Your task to perform on an android device: delete location history Image 0: 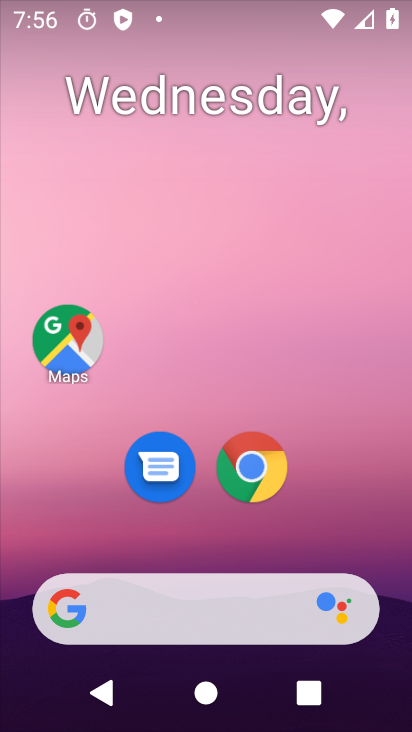
Step 0: click (51, 329)
Your task to perform on an android device: delete location history Image 1: 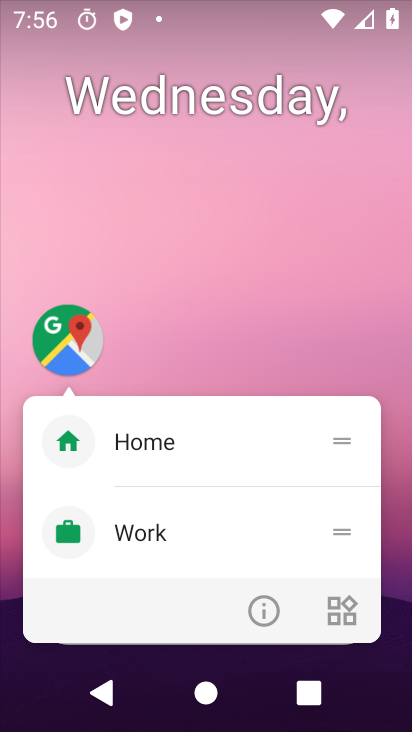
Step 1: click (51, 329)
Your task to perform on an android device: delete location history Image 2: 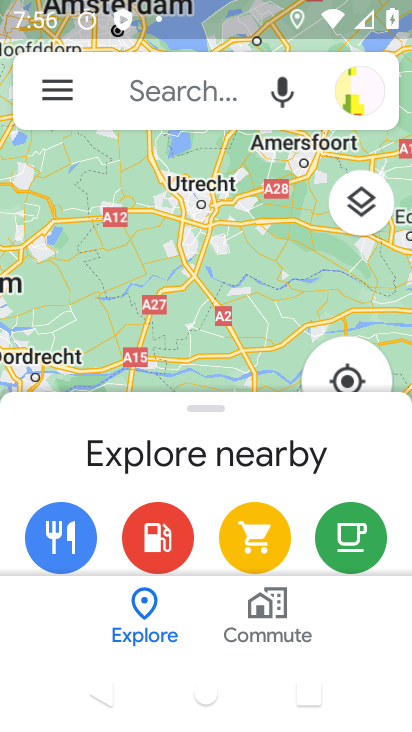
Step 2: click (65, 92)
Your task to perform on an android device: delete location history Image 3: 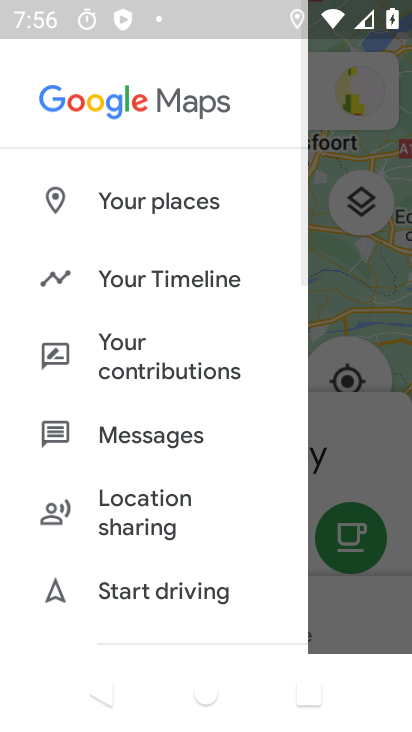
Step 3: click (134, 267)
Your task to perform on an android device: delete location history Image 4: 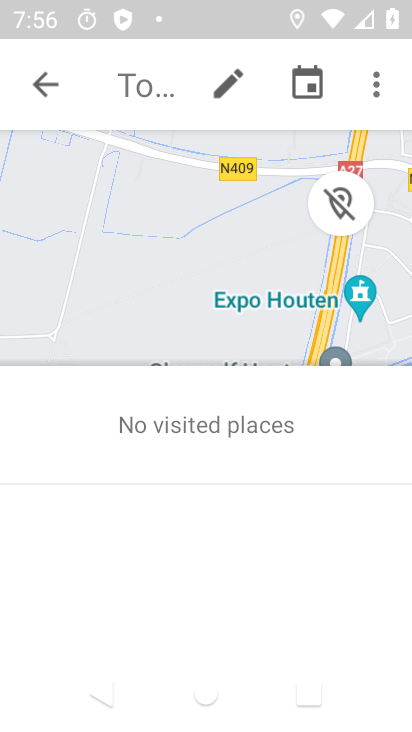
Step 4: click (370, 75)
Your task to perform on an android device: delete location history Image 5: 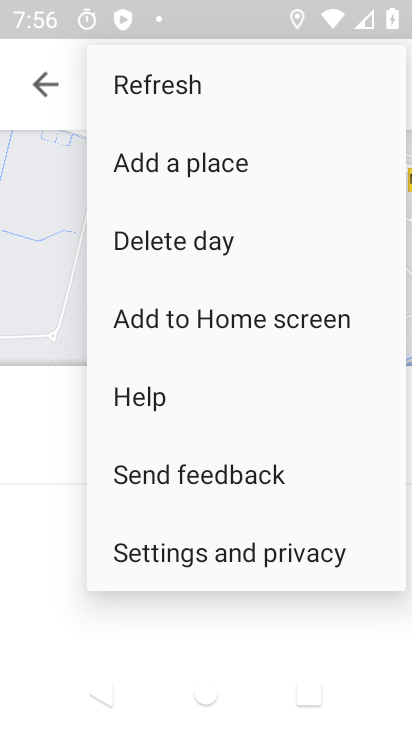
Step 5: click (246, 551)
Your task to perform on an android device: delete location history Image 6: 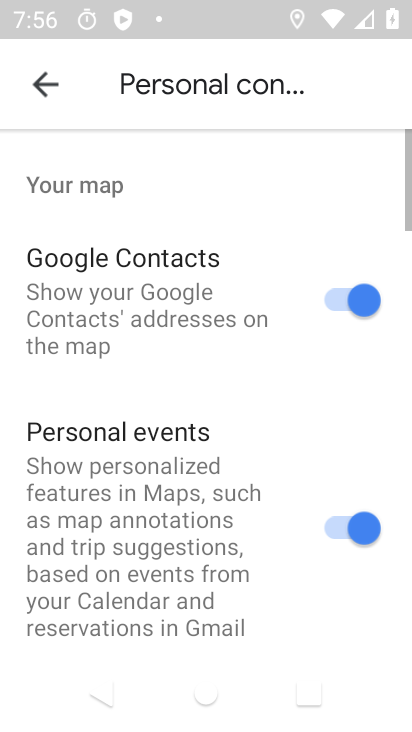
Step 6: drag from (246, 640) to (233, 180)
Your task to perform on an android device: delete location history Image 7: 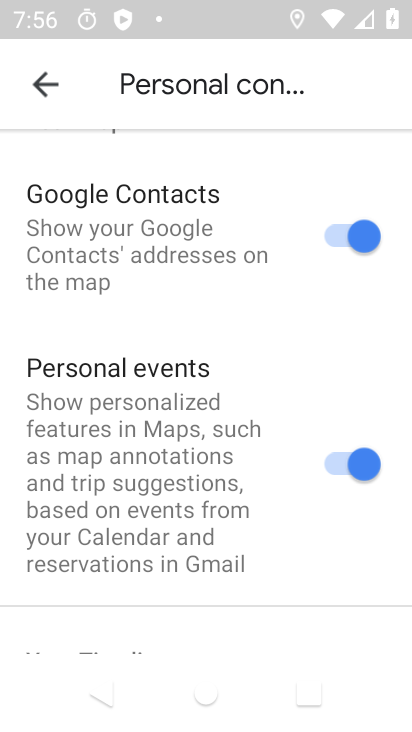
Step 7: drag from (267, 593) to (252, 150)
Your task to perform on an android device: delete location history Image 8: 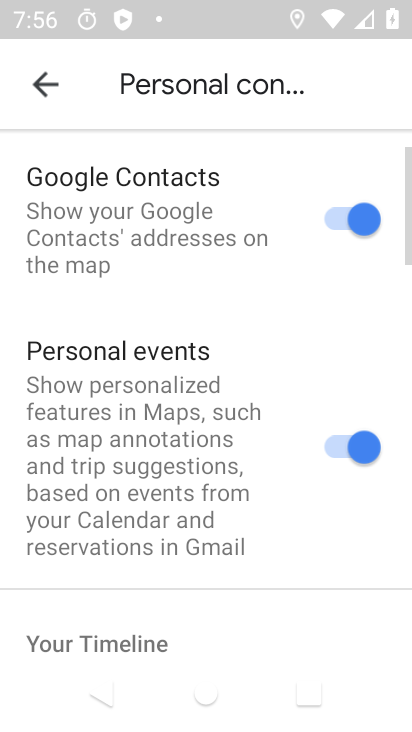
Step 8: drag from (256, 554) to (255, 161)
Your task to perform on an android device: delete location history Image 9: 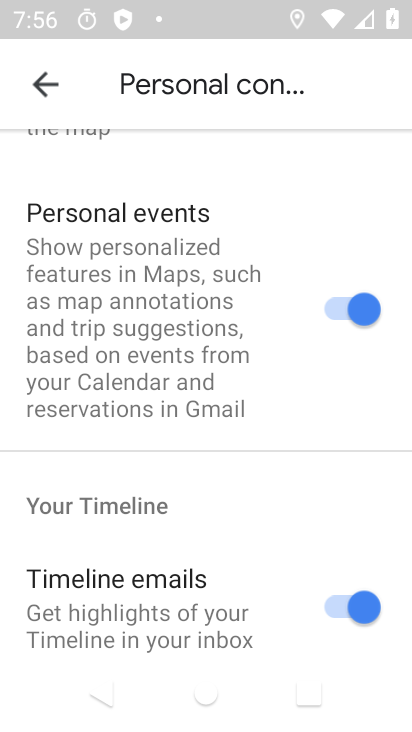
Step 9: drag from (266, 360) to (252, 221)
Your task to perform on an android device: delete location history Image 10: 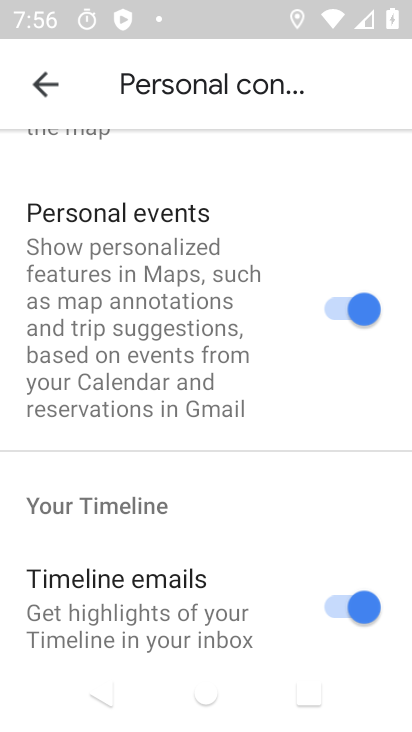
Step 10: drag from (252, 631) to (248, 277)
Your task to perform on an android device: delete location history Image 11: 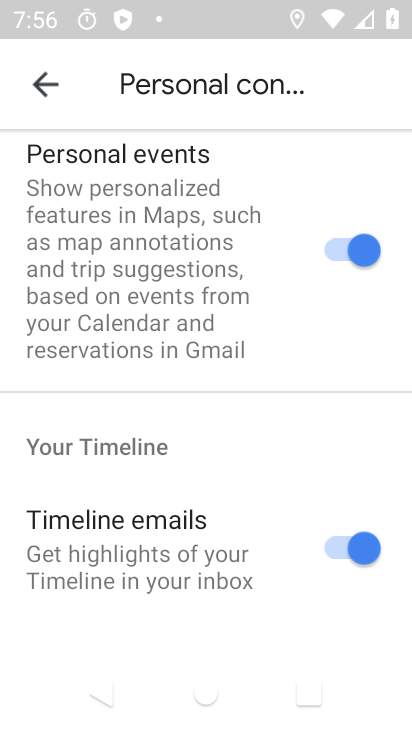
Step 11: drag from (243, 578) to (242, 237)
Your task to perform on an android device: delete location history Image 12: 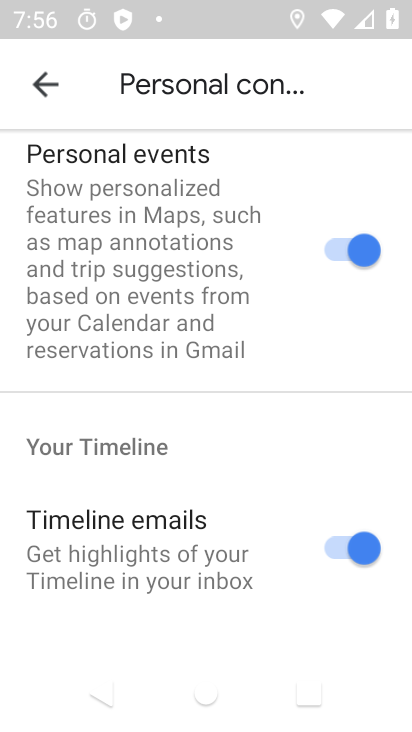
Step 12: drag from (253, 595) to (225, 140)
Your task to perform on an android device: delete location history Image 13: 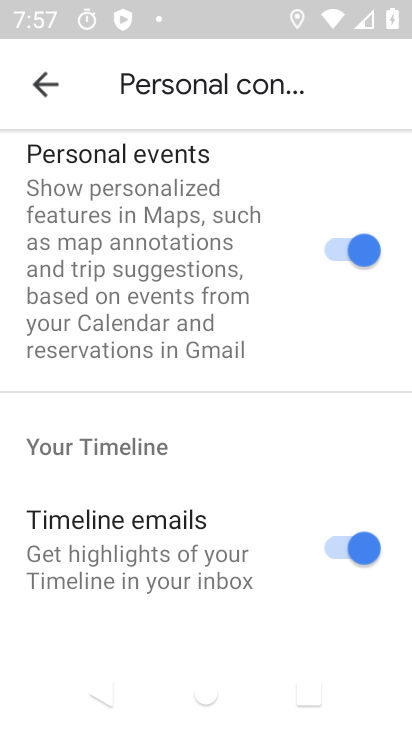
Step 13: drag from (248, 607) to (246, 194)
Your task to perform on an android device: delete location history Image 14: 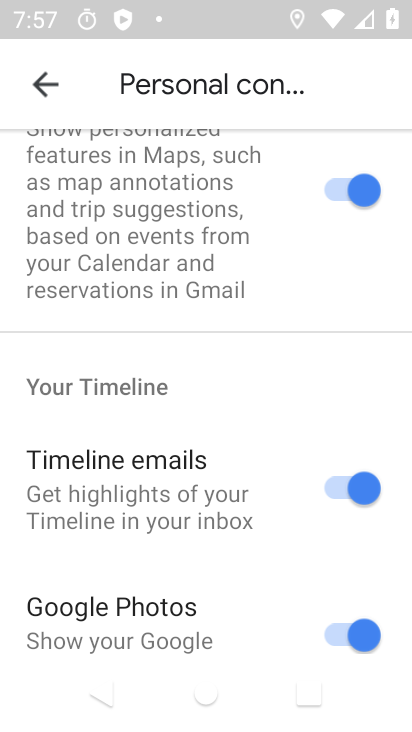
Step 14: drag from (226, 523) to (231, 278)
Your task to perform on an android device: delete location history Image 15: 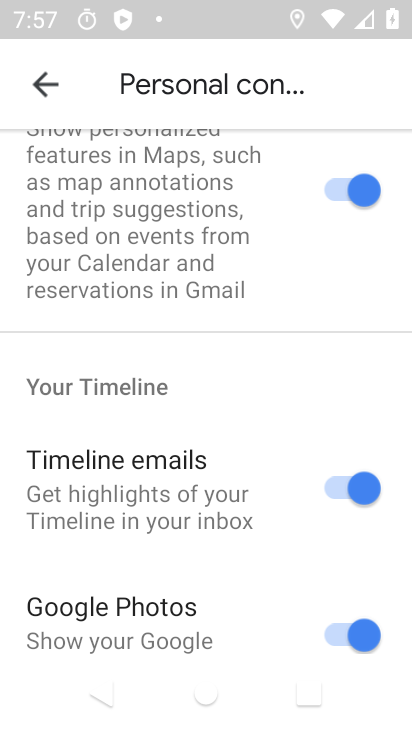
Step 15: drag from (232, 626) to (229, 173)
Your task to perform on an android device: delete location history Image 16: 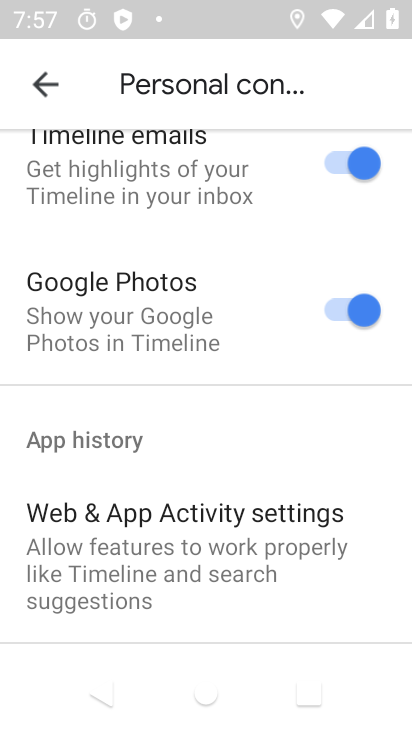
Step 16: drag from (209, 353) to (201, 206)
Your task to perform on an android device: delete location history Image 17: 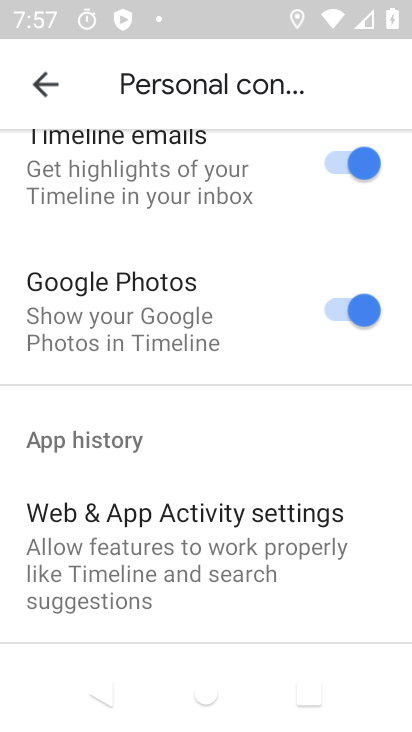
Step 17: drag from (211, 582) to (230, 252)
Your task to perform on an android device: delete location history Image 18: 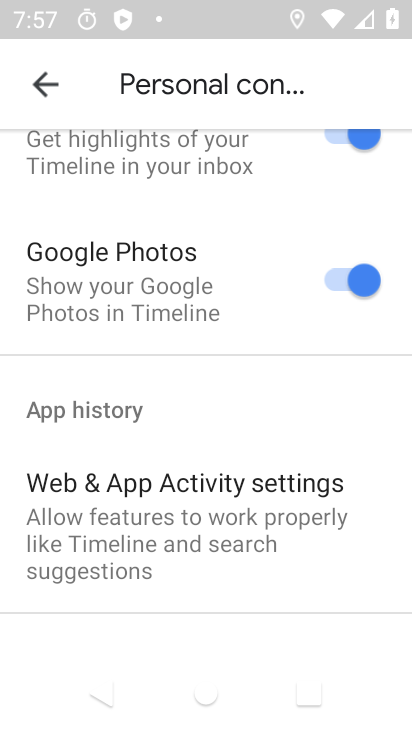
Step 18: drag from (238, 473) to (241, 166)
Your task to perform on an android device: delete location history Image 19: 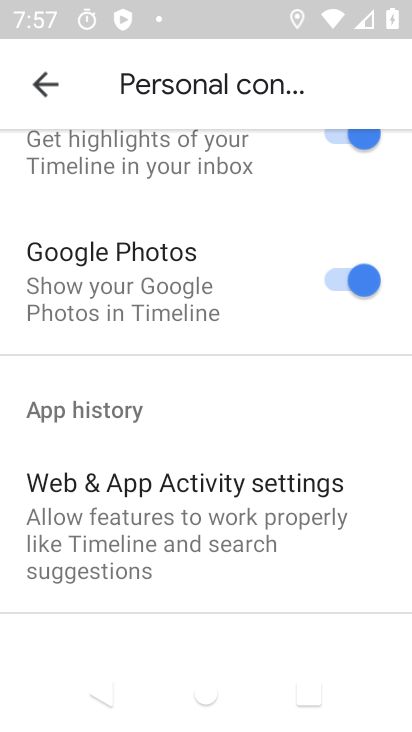
Step 19: drag from (228, 494) to (237, 209)
Your task to perform on an android device: delete location history Image 20: 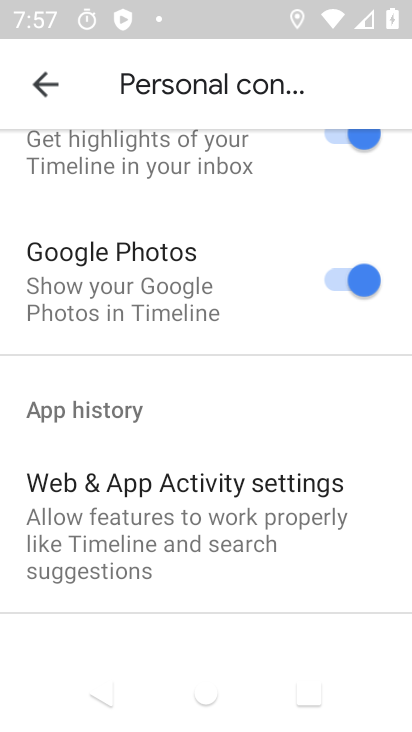
Step 20: drag from (240, 515) to (242, 123)
Your task to perform on an android device: delete location history Image 21: 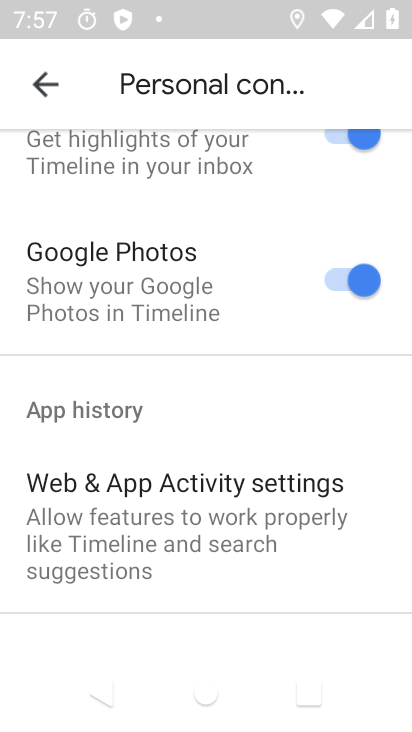
Step 21: drag from (247, 377) to (247, 277)
Your task to perform on an android device: delete location history Image 22: 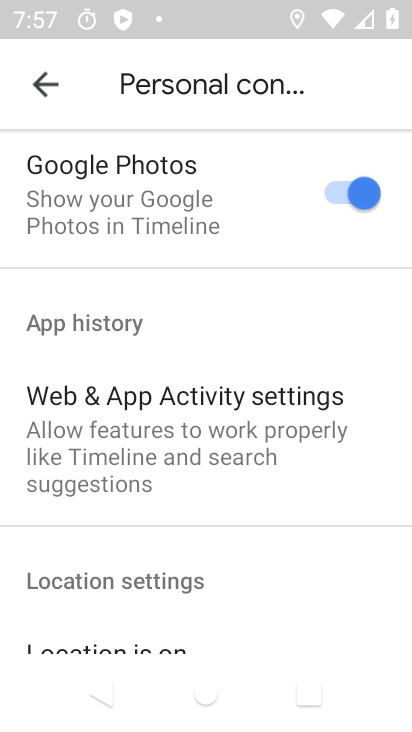
Step 22: drag from (269, 621) to (259, 261)
Your task to perform on an android device: delete location history Image 23: 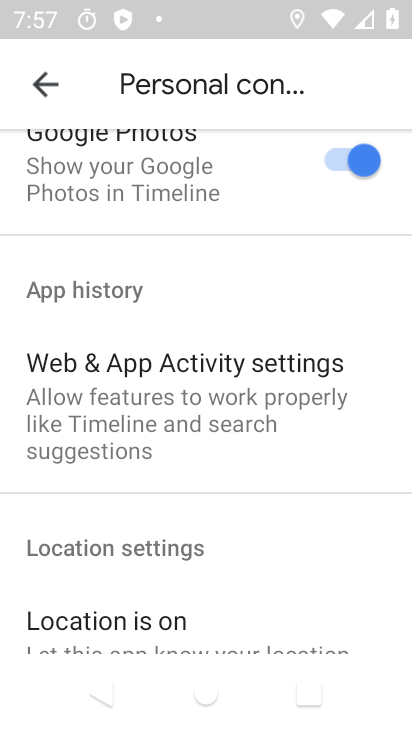
Step 23: drag from (271, 622) to (282, 243)
Your task to perform on an android device: delete location history Image 24: 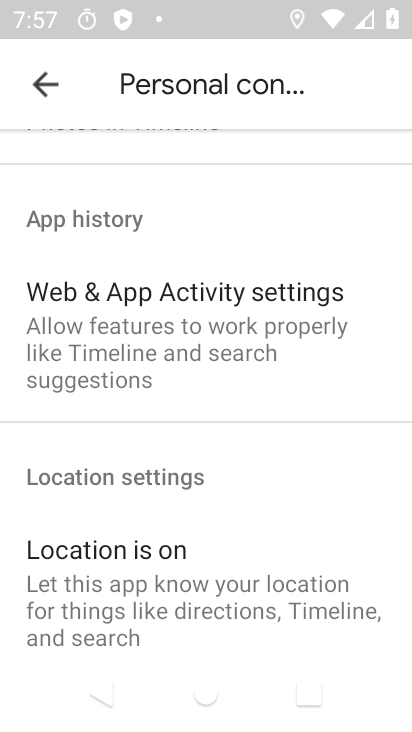
Step 24: drag from (265, 622) to (282, 270)
Your task to perform on an android device: delete location history Image 25: 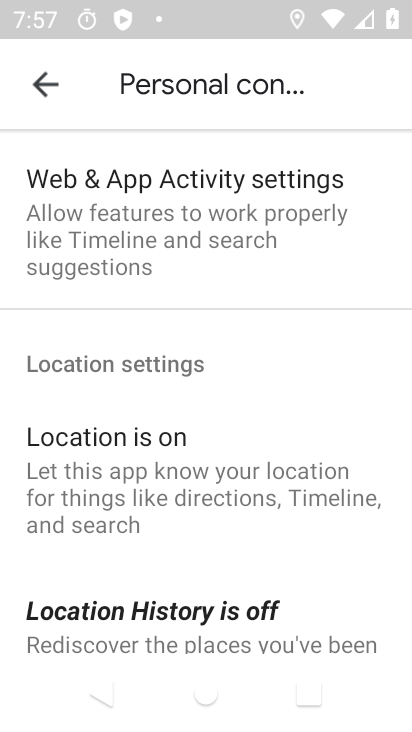
Step 25: drag from (263, 347) to (254, 249)
Your task to perform on an android device: delete location history Image 26: 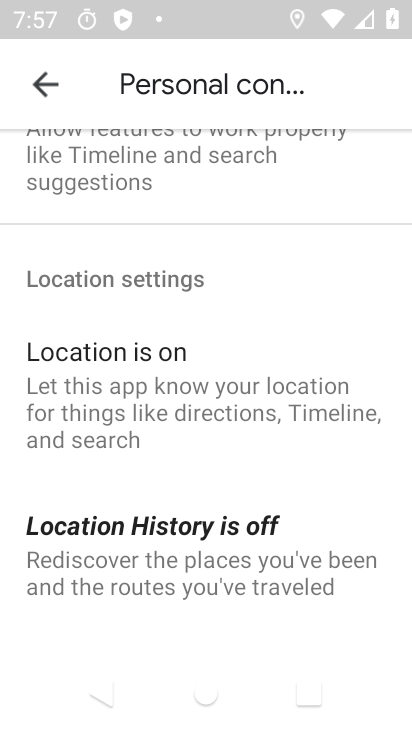
Step 26: drag from (232, 512) to (231, 268)
Your task to perform on an android device: delete location history Image 27: 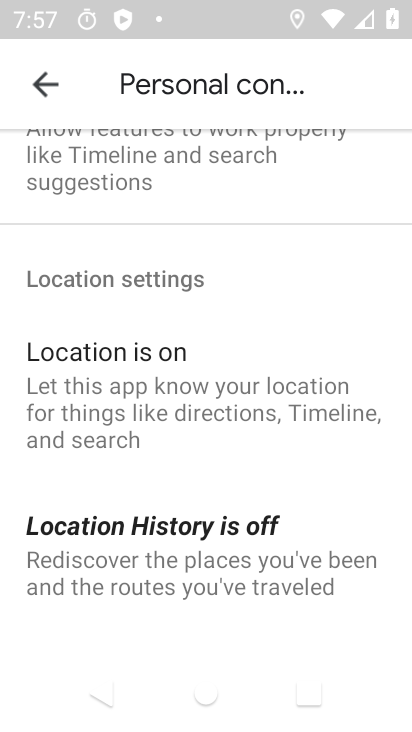
Step 27: drag from (301, 321) to (295, 207)
Your task to perform on an android device: delete location history Image 28: 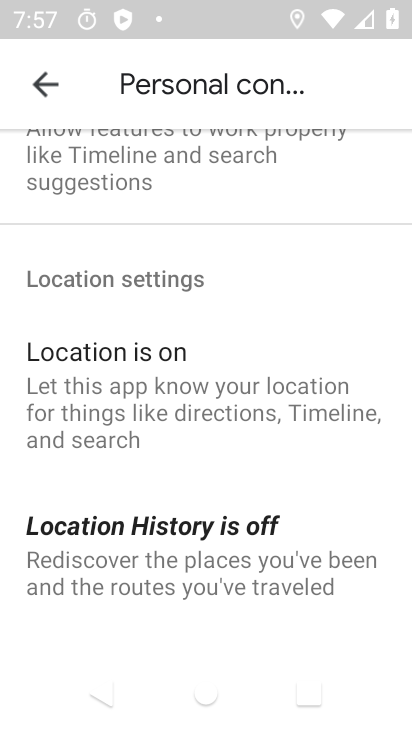
Step 28: drag from (369, 588) to (387, 272)
Your task to perform on an android device: delete location history Image 29: 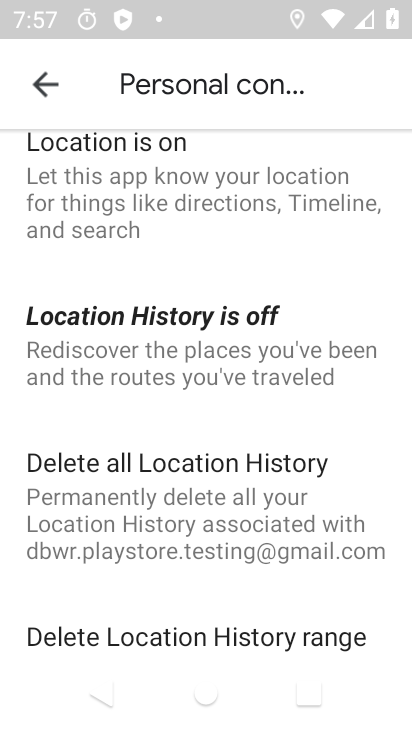
Step 29: click (103, 475)
Your task to perform on an android device: delete location history Image 30: 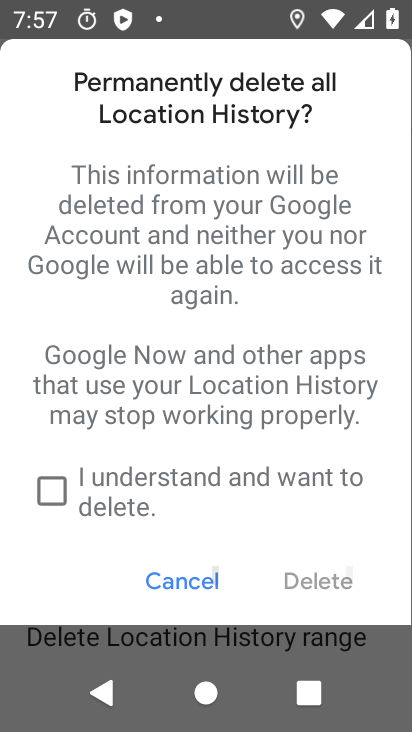
Step 30: click (45, 486)
Your task to perform on an android device: delete location history Image 31: 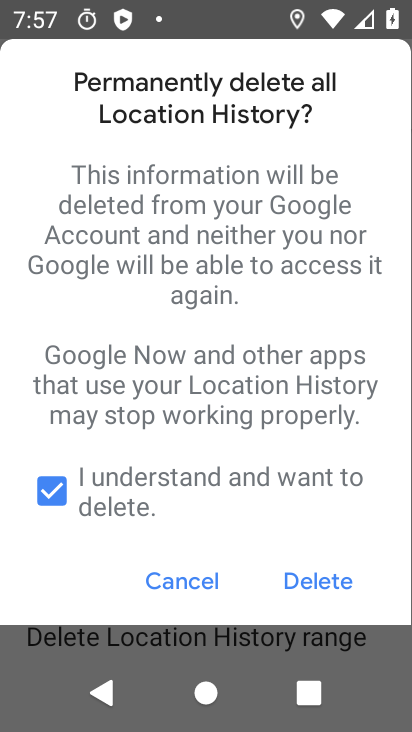
Step 31: click (326, 578)
Your task to perform on an android device: delete location history Image 32: 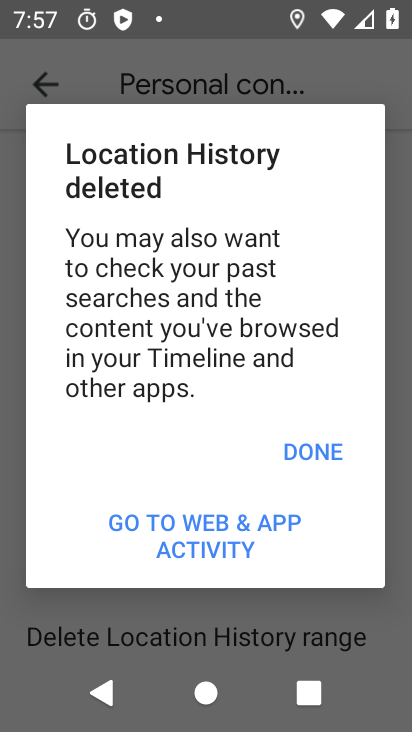
Step 32: click (311, 448)
Your task to perform on an android device: delete location history Image 33: 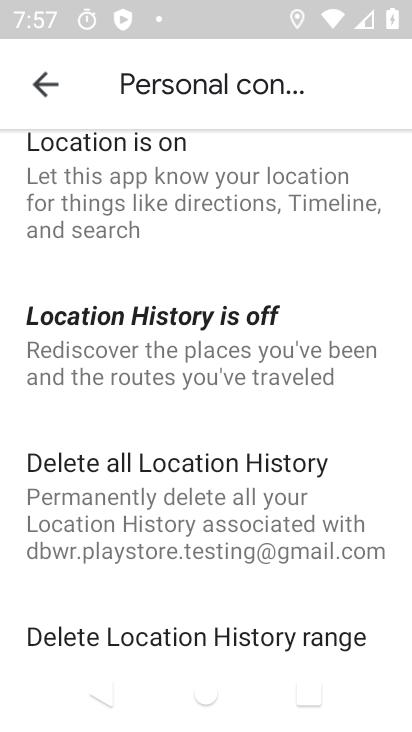
Step 33: task complete